Your task to perform on an android device: check out phone information Image 0: 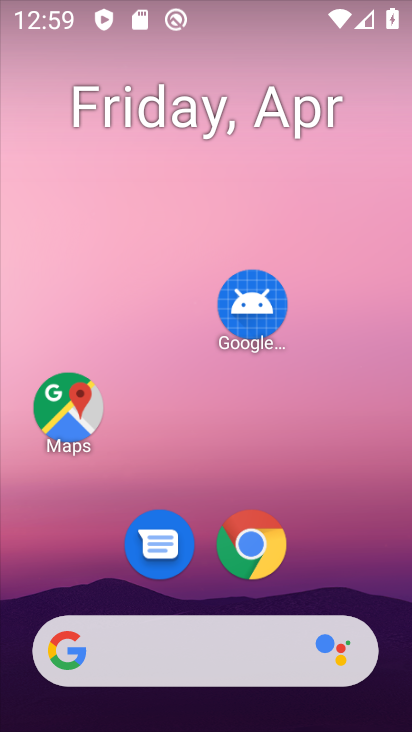
Step 0: drag from (64, 524) to (138, 84)
Your task to perform on an android device: check out phone information Image 1: 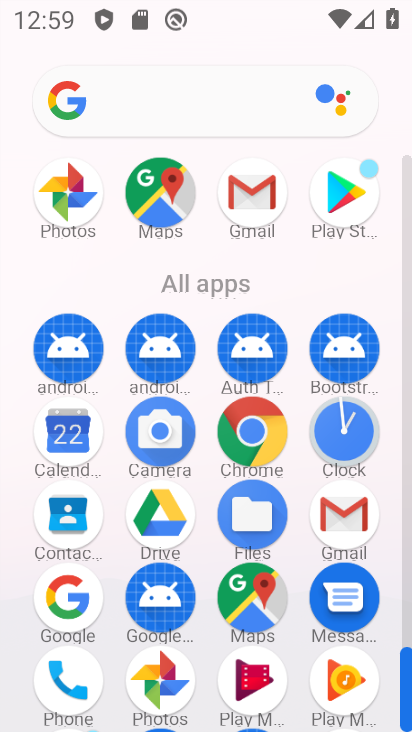
Step 1: drag from (390, 575) to (397, 322)
Your task to perform on an android device: check out phone information Image 2: 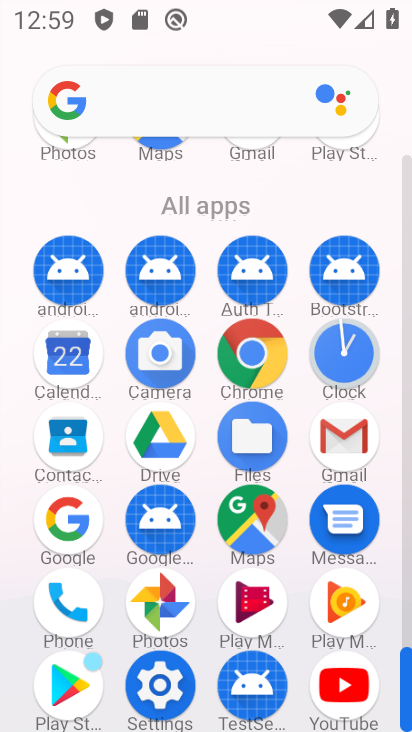
Step 2: click (160, 685)
Your task to perform on an android device: check out phone information Image 3: 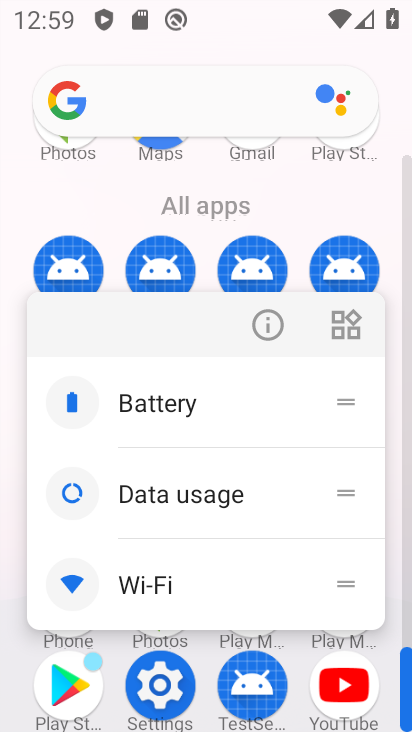
Step 3: click (167, 702)
Your task to perform on an android device: check out phone information Image 4: 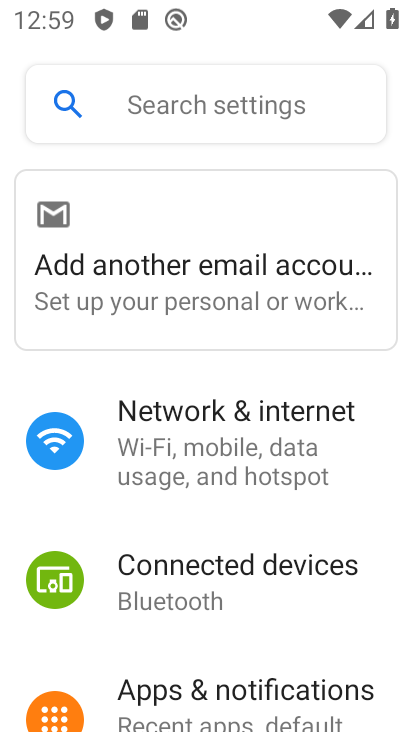
Step 4: drag from (183, 625) to (296, 128)
Your task to perform on an android device: check out phone information Image 5: 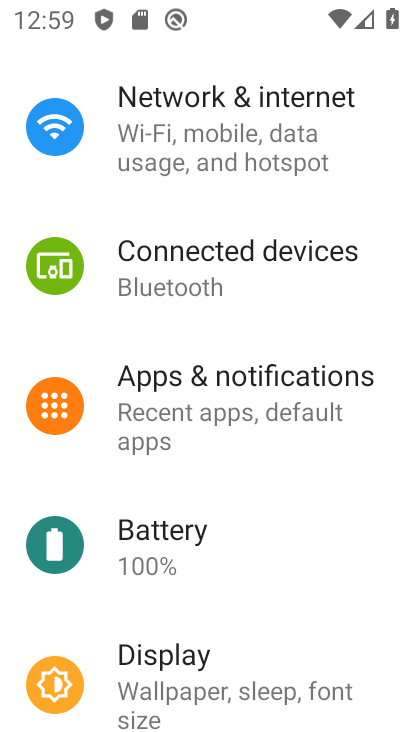
Step 5: drag from (185, 592) to (323, 142)
Your task to perform on an android device: check out phone information Image 6: 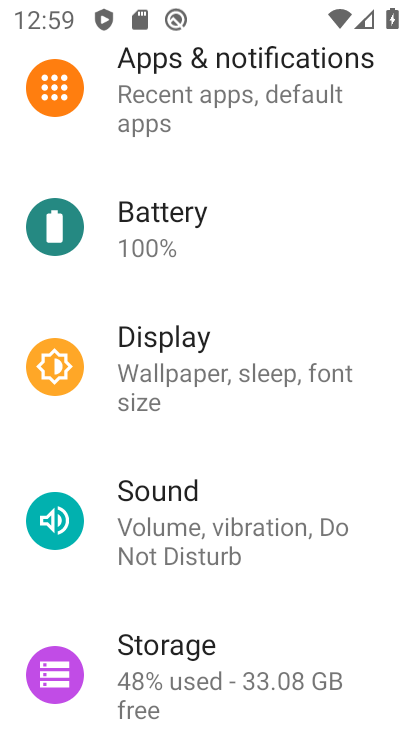
Step 6: drag from (253, 634) to (343, 150)
Your task to perform on an android device: check out phone information Image 7: 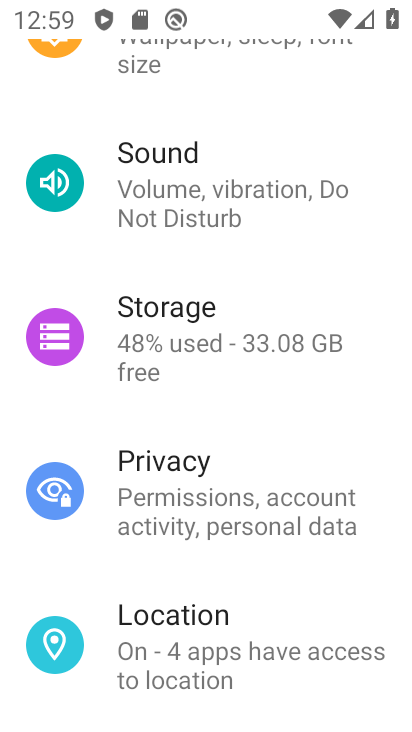
Step 7: drag from (158, 639) to (276, 185)
Your task to perform on an android device: check out phone information Image 8: 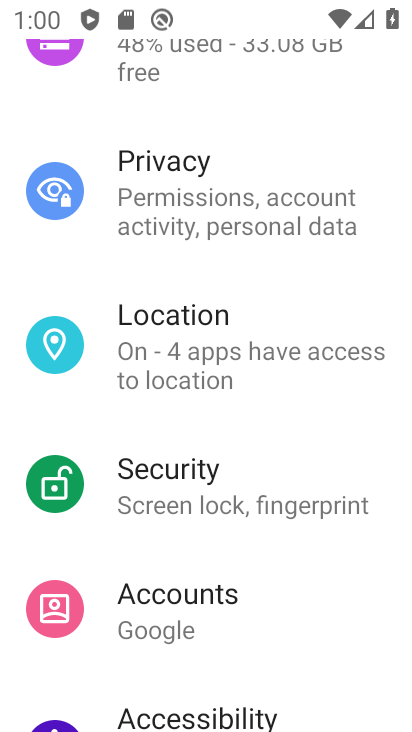
Step 8: drag from (207, 695) to (297, 218)
Your task to perform on an android device: check out phone information Image 9: 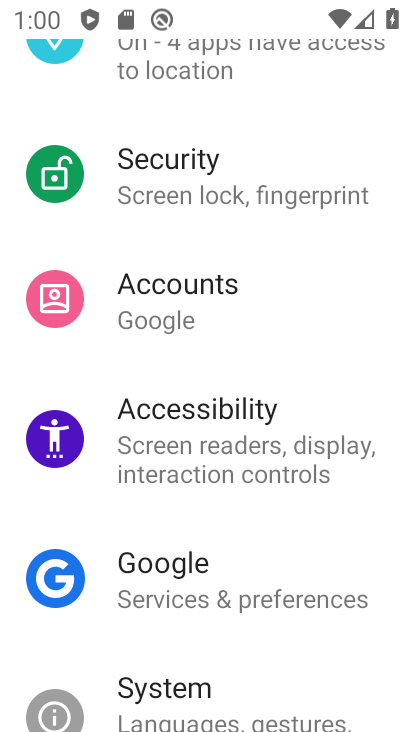
Step 9: drag from (200, 594) to (292, 286)
Your task to perform on an android device: check out phone information Image 10: 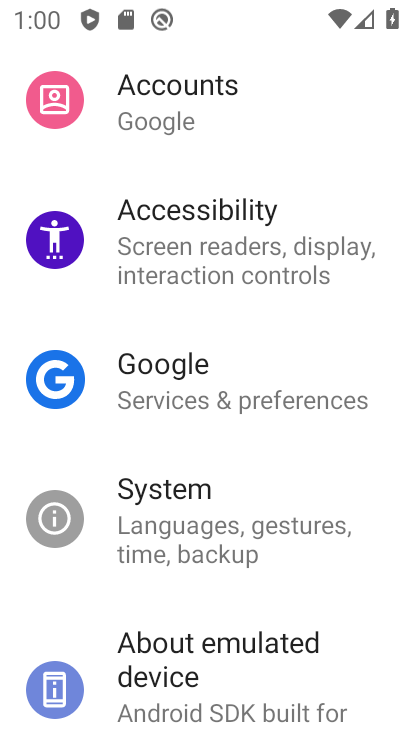
Step 10: drag from (189, 677) to (249, 379)
Your task to perform on an android device: check out phone information Image 11: 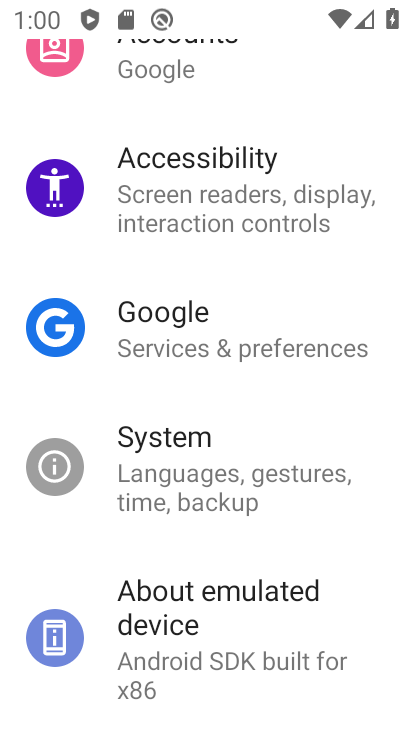
Step 11: click (215, 630)
Your task to perform on an android device: check out phone information Image 12: 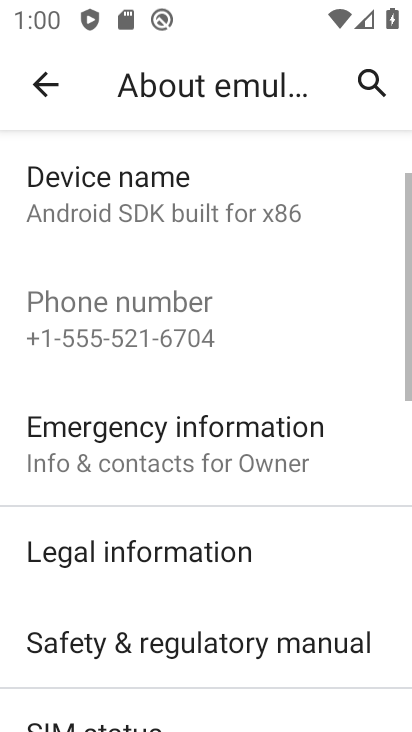
Step 12: task complete